Your task to perform on an android device: Show me popular games on the Play Store Image 0: 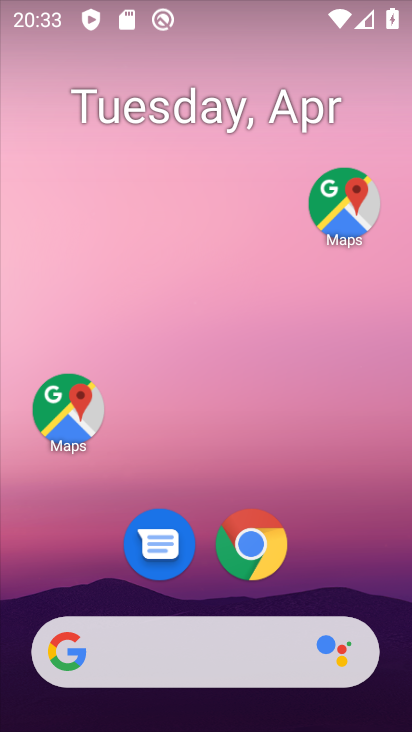
Step 0: drag from (202, 656) to (353, 89)
Your task to perform on an android device: Show me popular games on the Play Store Image 1: 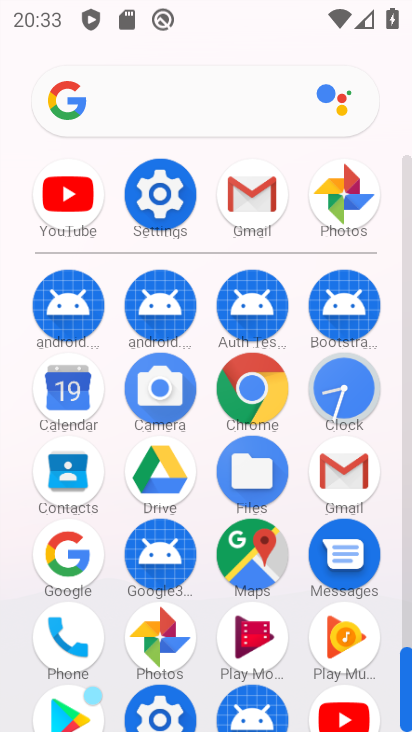
Step 1: drag from (109, 627) to (297, 233)
Your task to perform on an android device: Show me popular games on the Play Store Image 2: 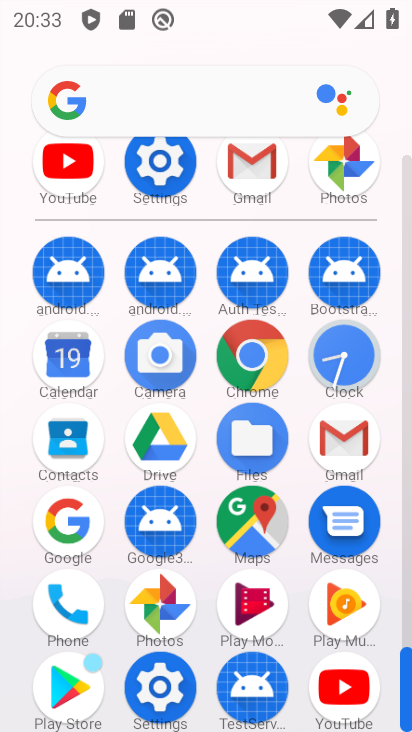
Step 2: click (65, 678)
Your task to perform on an android device: Show me popular games on the Play Store Image 3: 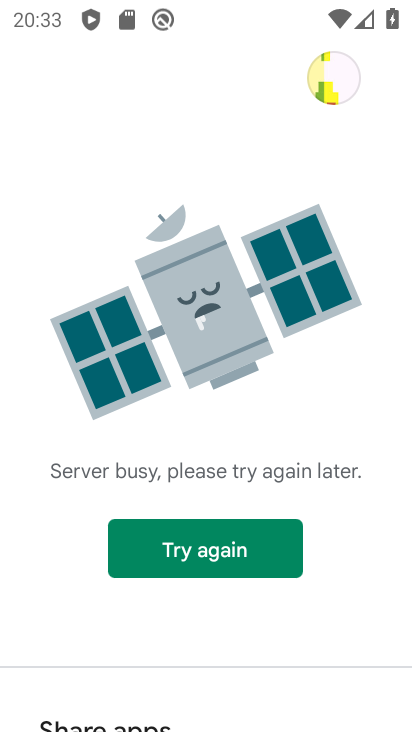
Step 3: task complete